Your task to perform on an android device: turn on priority inbox in the gmail app Image 0: 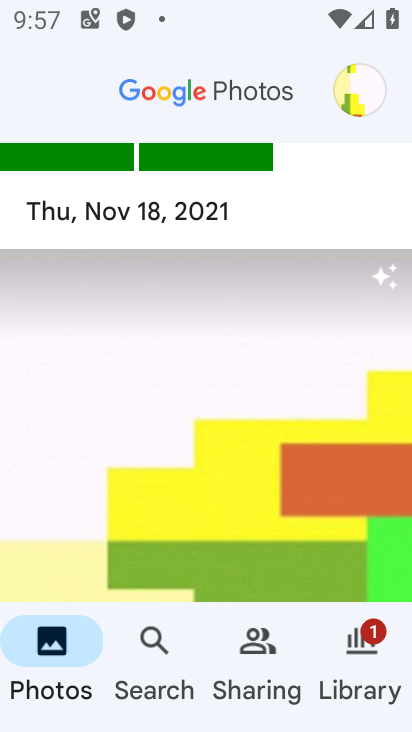
Step 0: press home button
Your task to perform on an android device: turn on priority inbox in the gmail app Image 1: 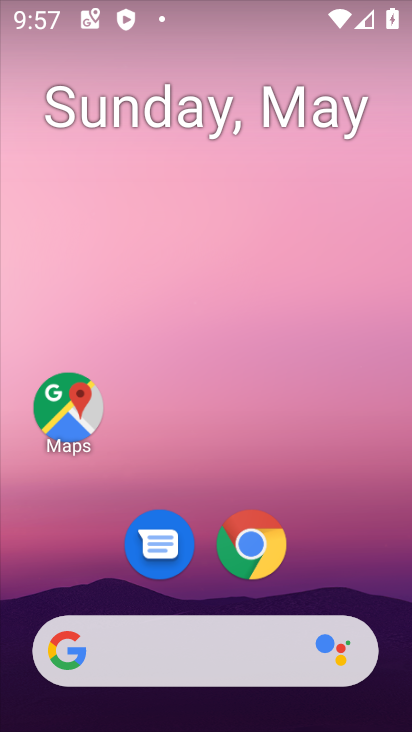
Step 1: drag from (344, 527) to (117, 240)
Your task to perform on an android device: turn on priority inbox in the gmail app Image 2: 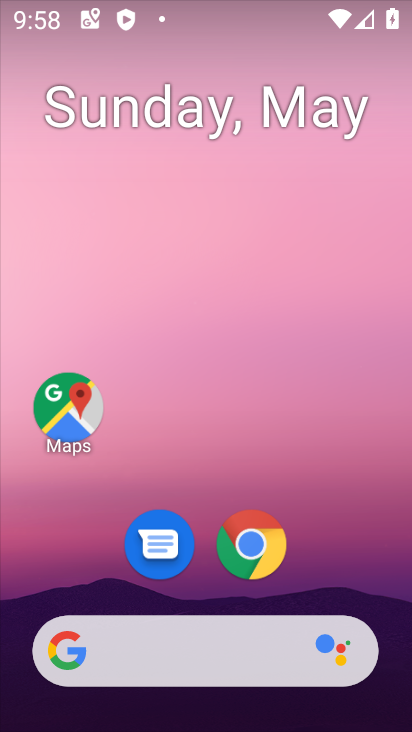
Step 2: drag from (341, 557) to (2, 156)
Your task to perform on an android device: turn on priority inbox in the gmail app Image 3: 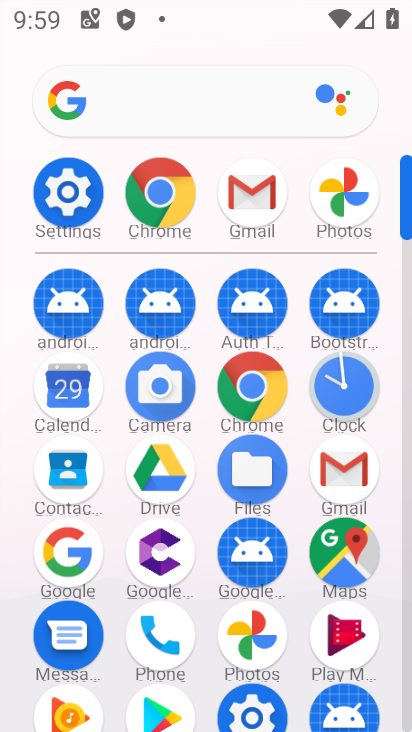
Step 3: click (223, 222)
Your task to perform on an android device: turn on priority inbox in the gmail app Image 4: 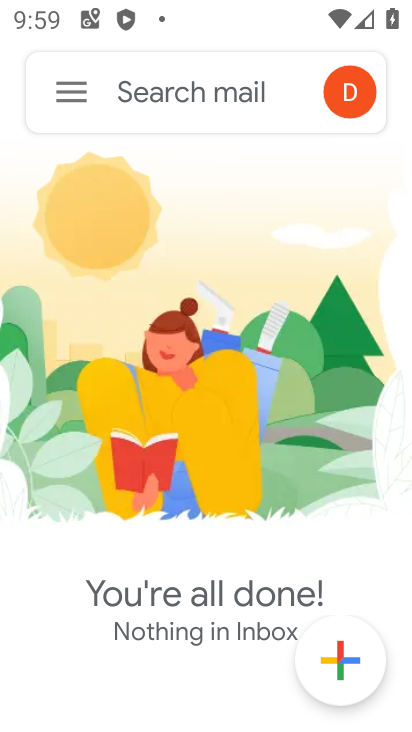
Step 4: click (66, 116)
Your task to perform on an android device: turn on priority inbox in the gmail app Image 5: 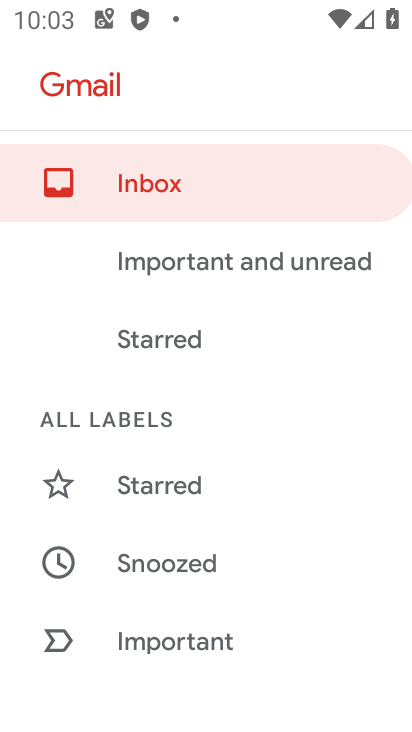
Step 5: drag from (210, 613) to (263, 192)
Your task to perform on an android device: turn on priority inbox in the gmail app Image 6: 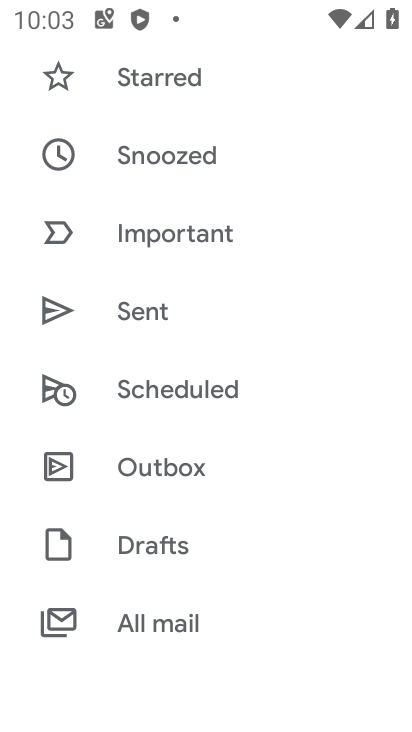
Step 6: drag from (178, 600) to (228, 235)
Your task to perform on an android device: turn on priority inbox in the gmail app Image 7: 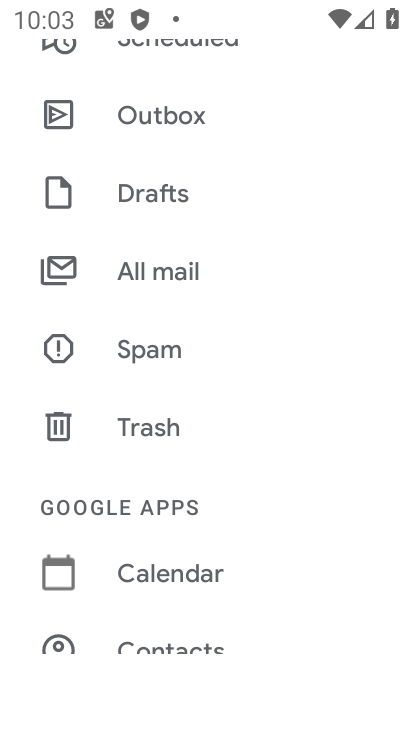
Step 7: drag from (159, 635) to (199, 219)
Your task to perform on an android device: turn on priority inbox in the gmail app Image 8: 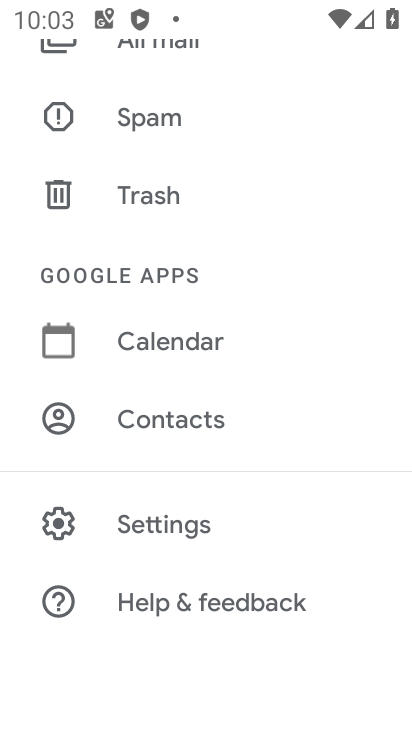
Step 8: click (175, 514)
Your task to perform on an android device: turn on priority inbox in the gmail app Image 9: 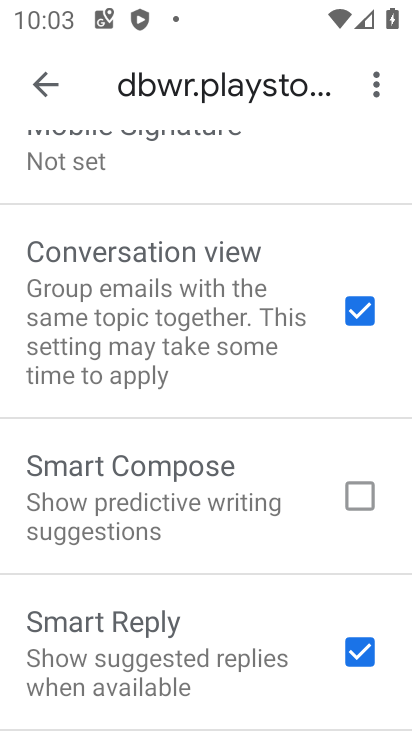
Step 9: drag from (161, 212) to (248, 593)
Your task to perform on an android device: turn on priority inbox in the gmail app Image 10: 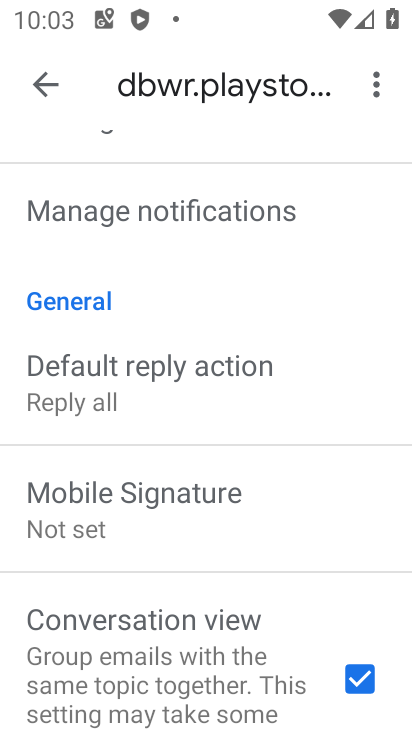
Step 10: drag from (146, 265) to (214, 627)
Your task to perform on an android device: turn on priority inbox in the gmail app Image 11: 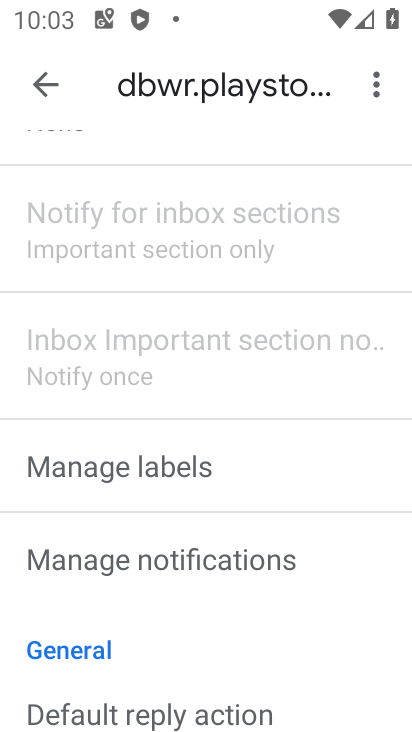
Step 11: drag from (190, 290) to (230, 599)
Your task to perform on an android device: turn on priority inbox in the gmail app Image 12: 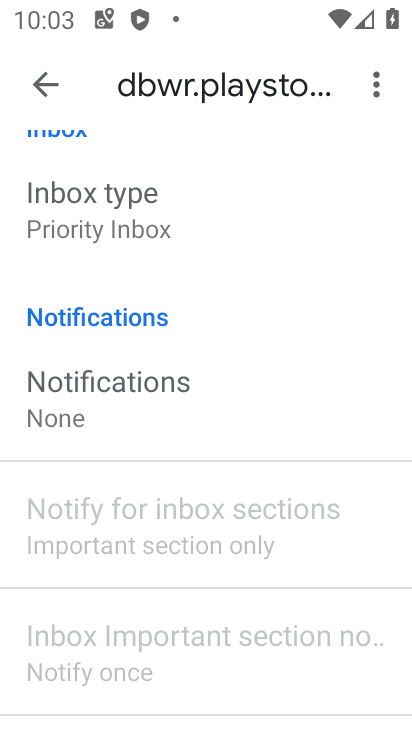
Step 12: click (100, 231)
Your task to perform on an android device: turn on priority inbox in the gmail app Image 13: 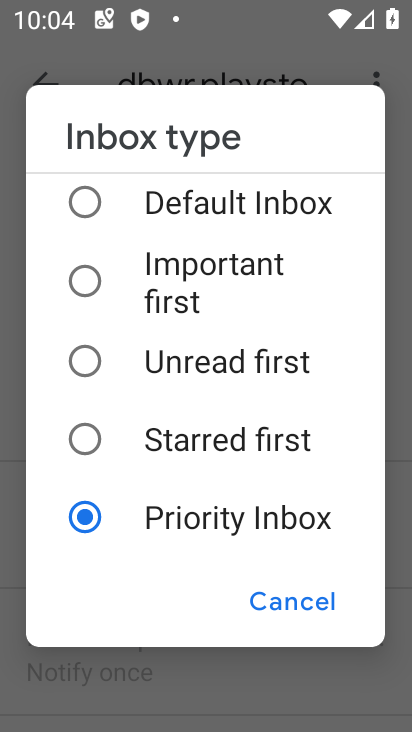
Step 13: task complete